Your task to perform on an android device: Search for seafood restaurants on Google Maps Image 0: 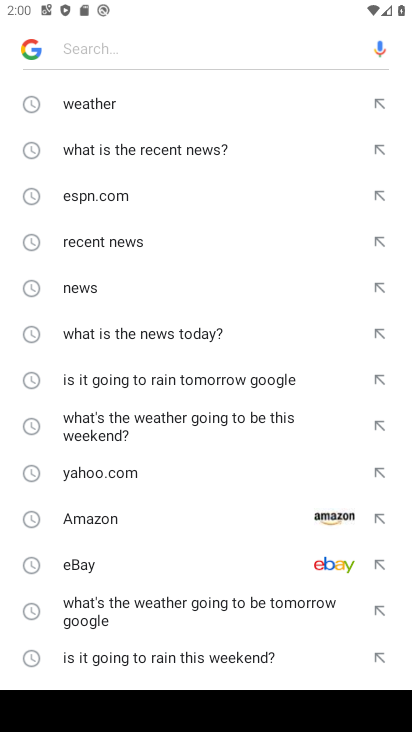
Step 0: press back button
Your task to perform on an android device: Search for seafood restaurants on Google Maps Image 1: 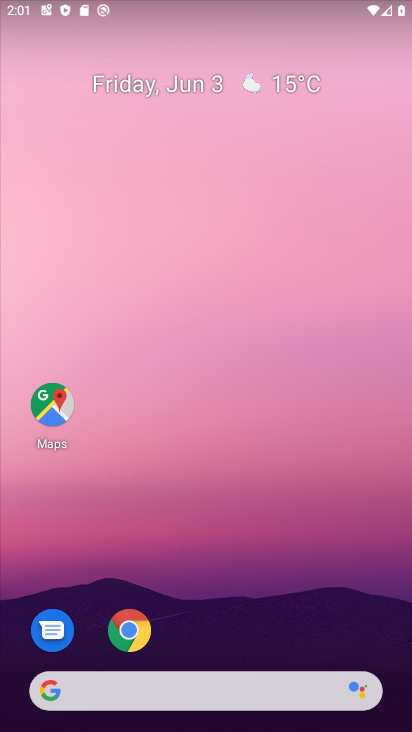
Step 1: drag from (189, 565) to (212, 27)
Your task to perform on an android device: Search for seafood restaurants on Google Maps Image 2: 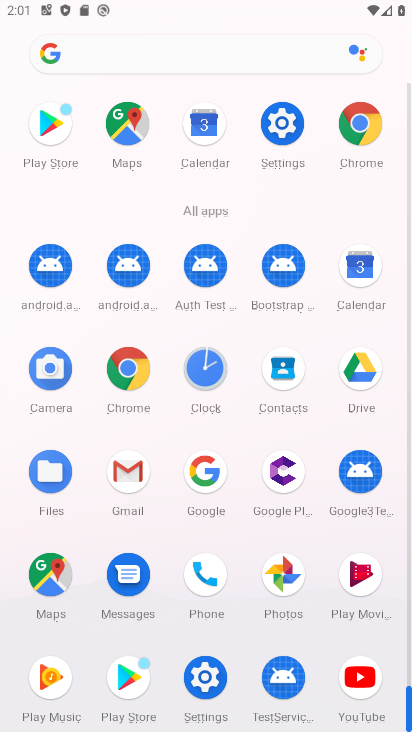
Step 2: click (121, 124)
Your task to perform on an android device: Search for seafood restaurants on Google Maps Image 3: 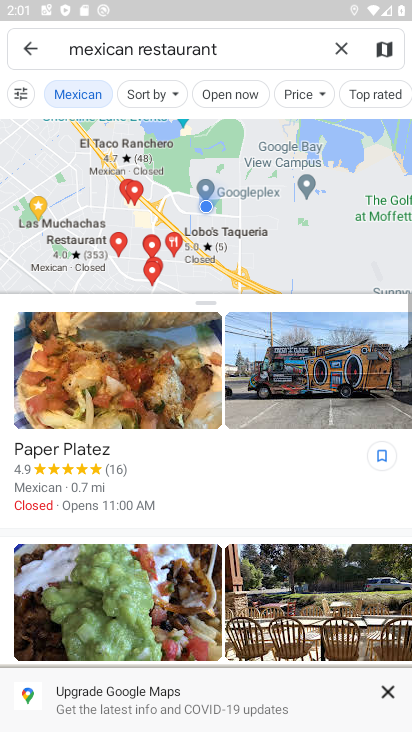
Step 3: click (340, 50)
Your task to perform on an android device: Search for seafood restaurants on Google Maps Image 4: 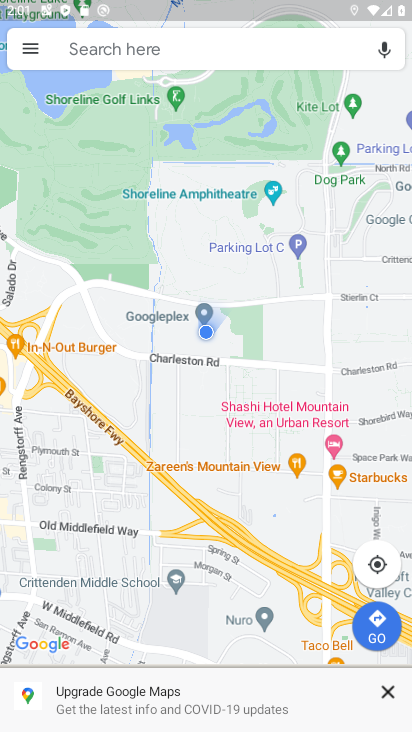
Step 4: click (204, 48)
Your task to perform on an android device: Search for seafood restaurants on Google Maps Image 5: 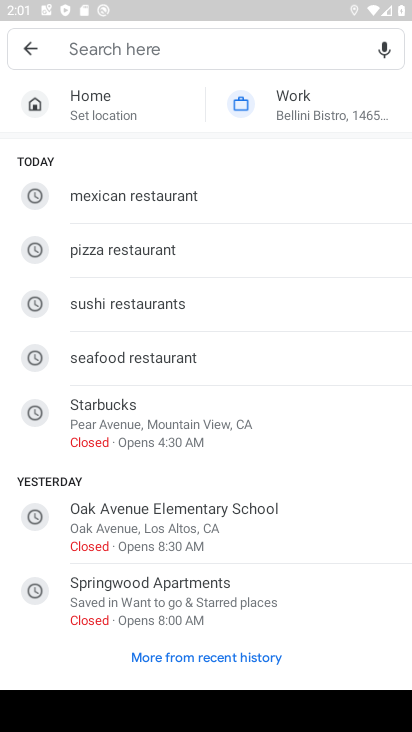
Step 5: click (128, 351)
Your task to perform on an android device: Search for seafood restaurants on Google Maps Image 6: 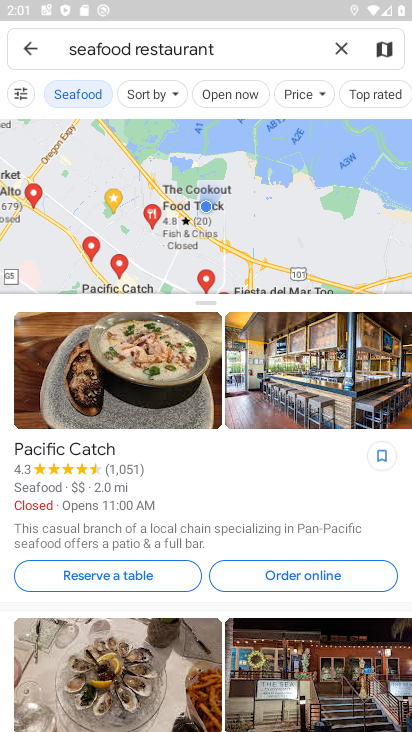
Step 6: task complete